Your task to perform on an android device: Toggle the flashlight Image 0: 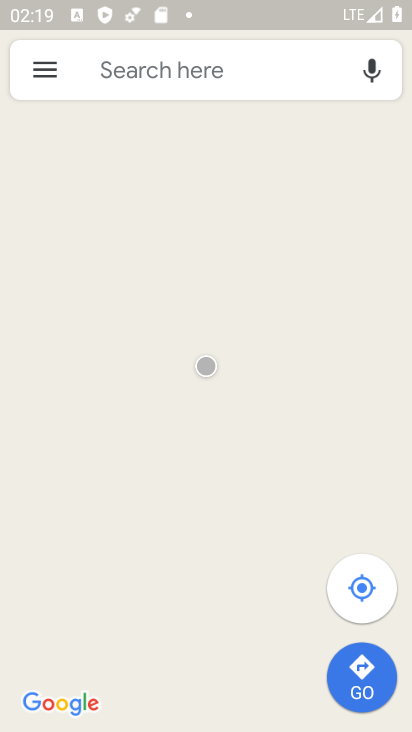
Step 0: press home button
Your task to perform on an android device: Toggle the flashlight Image 1: 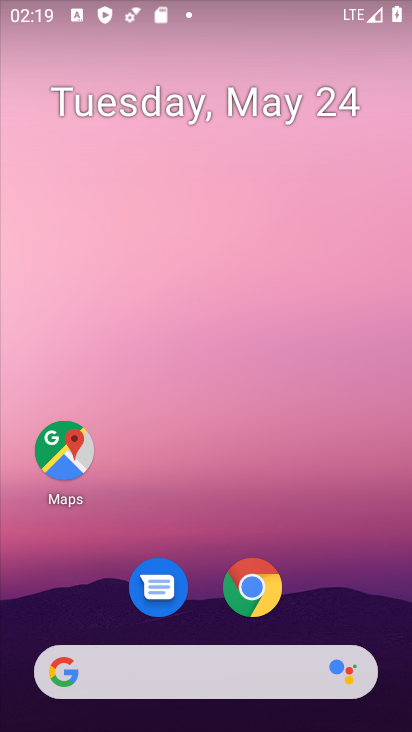
Step 1: task complete